Your task to perform on an android device: toggle notification dots Image 0: 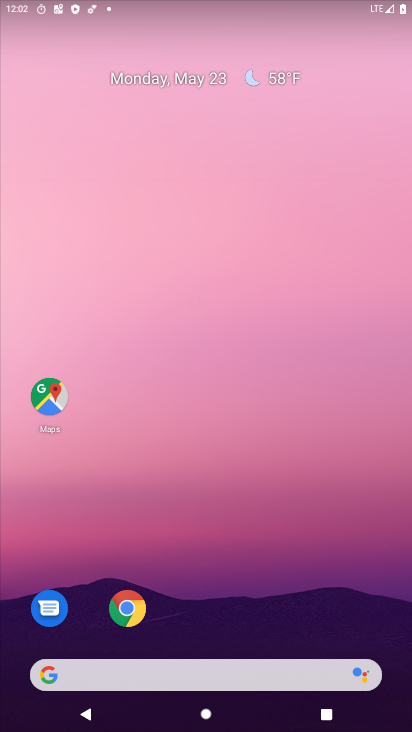
Step 0: drag from (257, 632) to (206, 117)
Your task to perform on an android device: toggle notification dots Image 1: 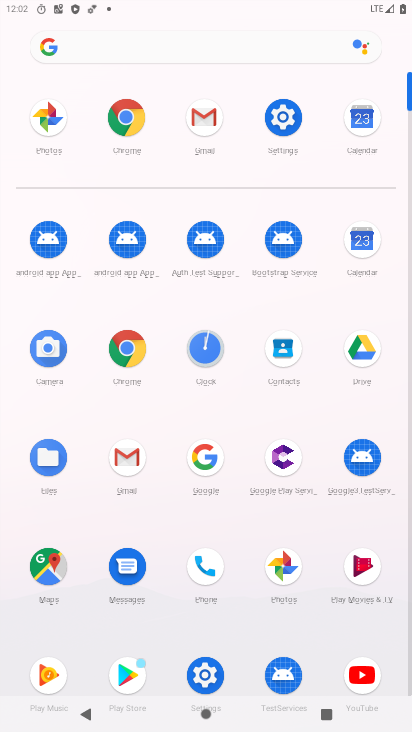
Step 1: click (287, 125)
Your task to perform on an android device: toggle notification dots Image 2: 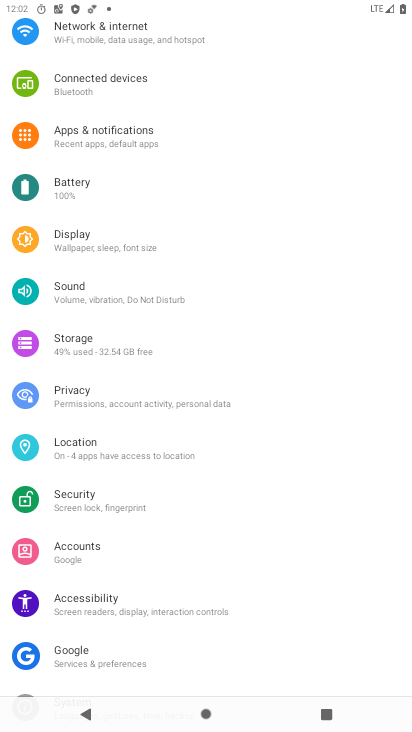
Step 2: click (191, 143)
Your task to perform on an android device: toggle notification dots Image 3: 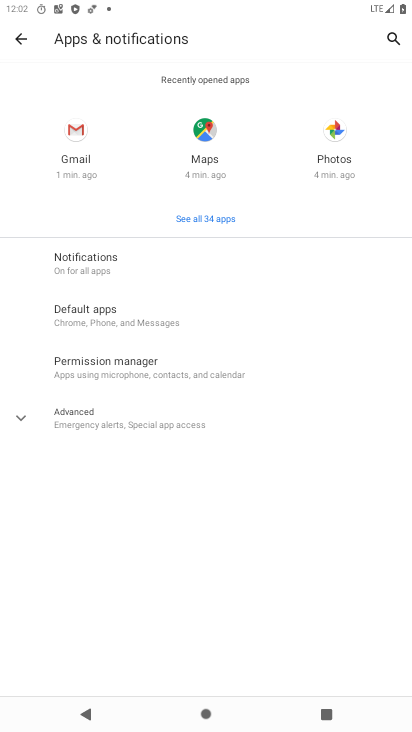
Step 3: click (187, 281)
Your task to perform on an android device: toggle notification dots Image 4: 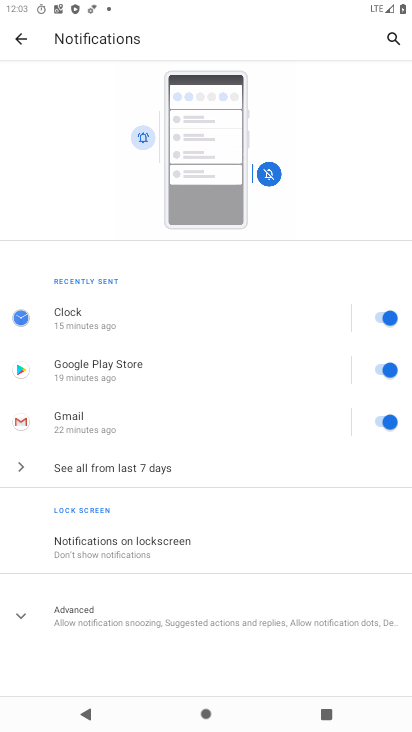
Step 4: click (205, 608)
Your task to perform on an android device: toggle notification dots Image 5: 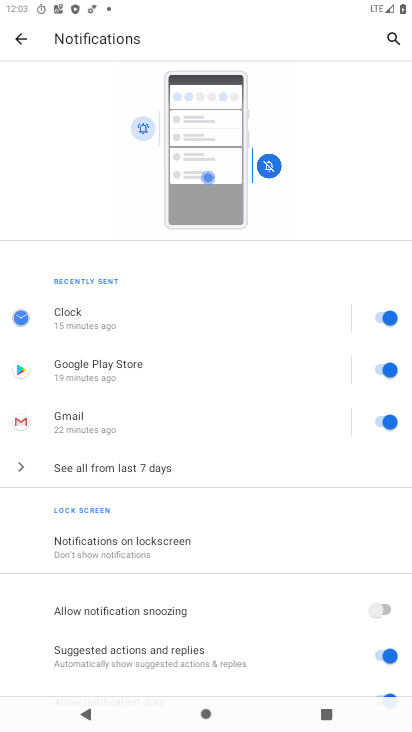
Step 5: drag from (233, 644) to (191, 269)
Your task to perform on an android device: toggle notification dots Image 6: 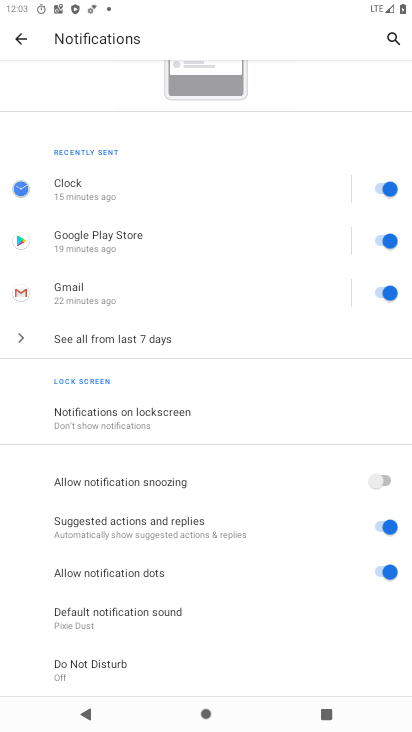
Step 6: click (385, 563)
Your task to perform on an android device: toggle notification dots Image 7: 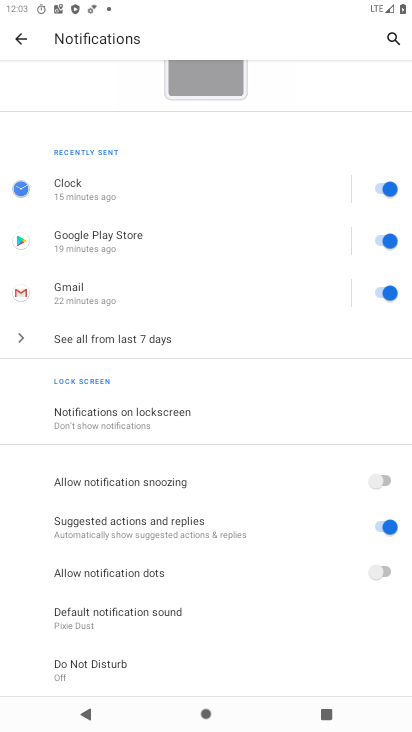
Step 7: task complete